Your task to perform on an android device: open sync settings in chrome Image 0: 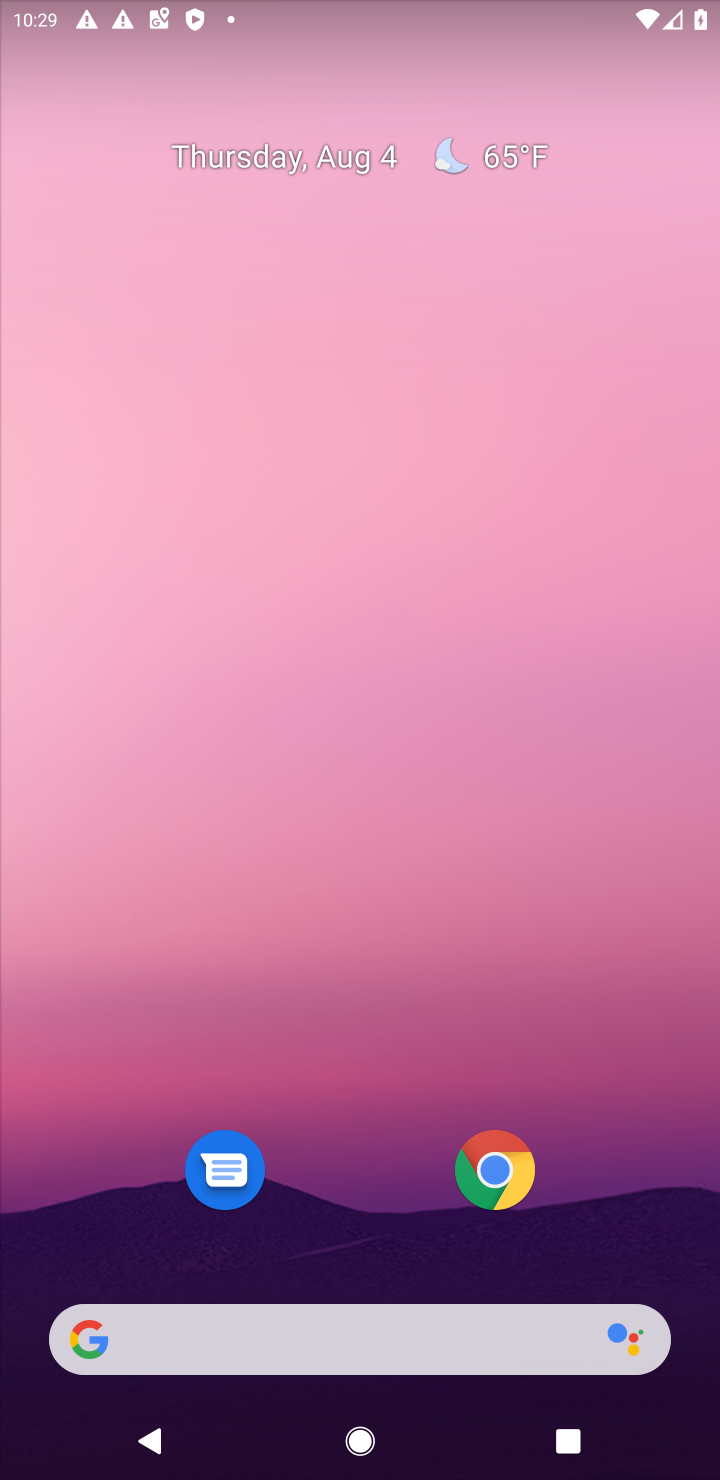
Step 0: drag from (231, 1112) to (365, 16)
Your task to perform on an android device: open sync settings in chrome Image 1: 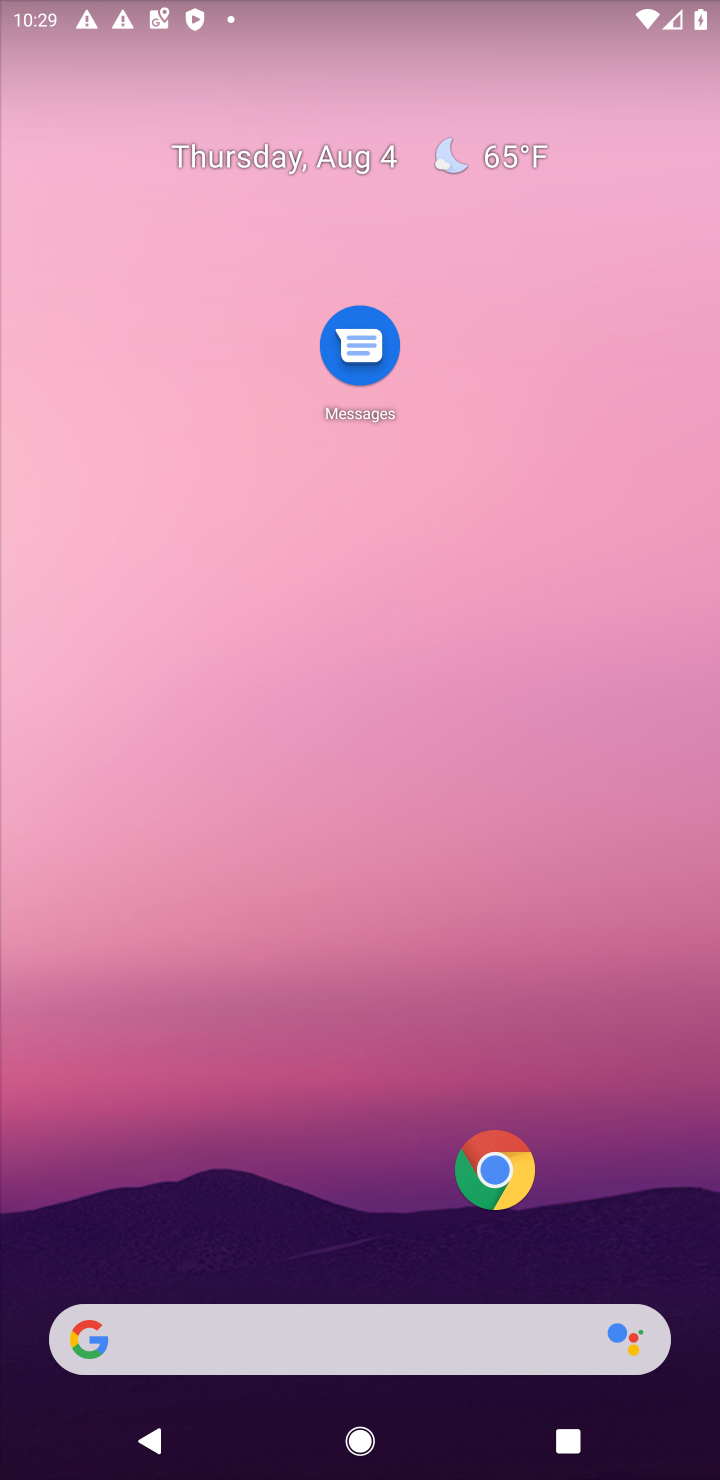
Step 1: drag from (305, 911) to (361, 0)
Your task to perform on an android device: open sync settings in chrome Image 2: 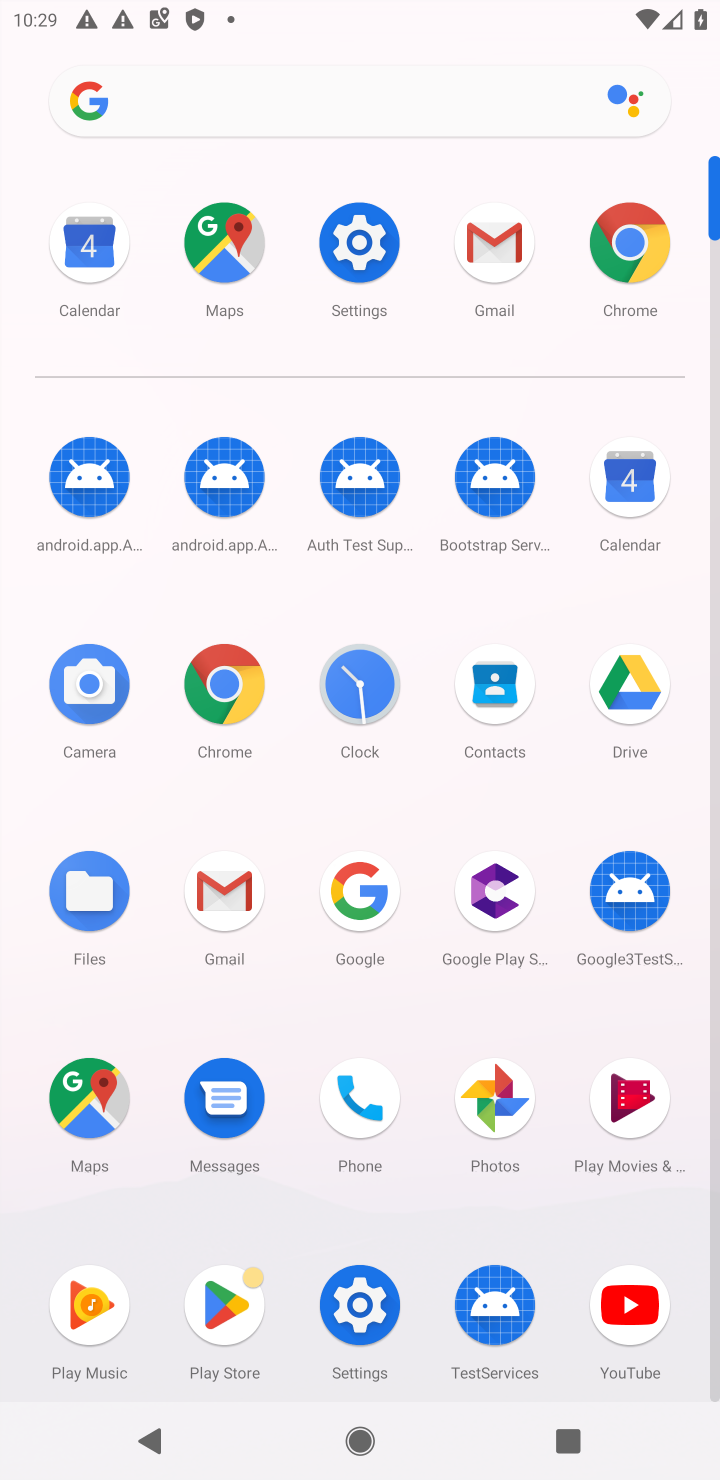
Step 2: click (634, 253)
Your task to perform on an android device: open sync settings in chrome Image 3: 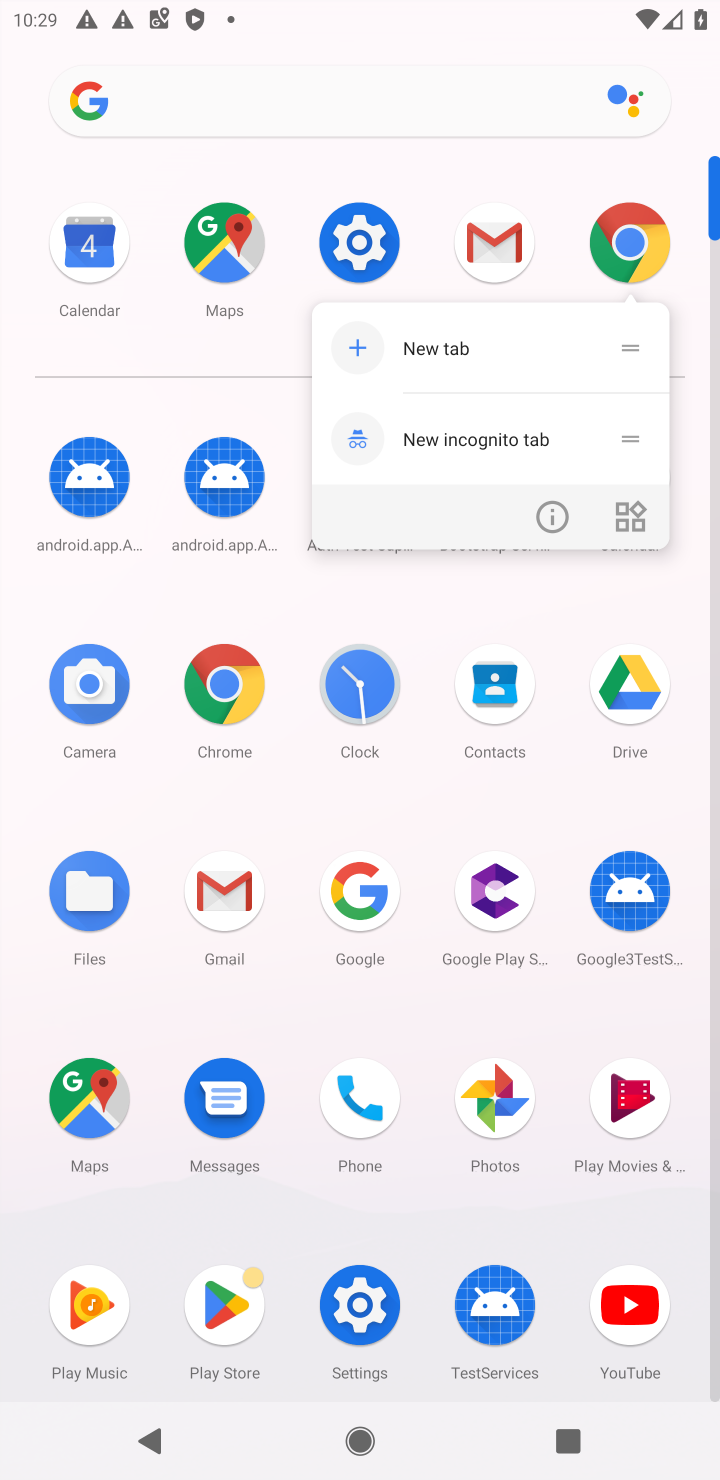
Step 3: click (634, 253)
Your task to perform on an android device: open sync settings in chrome Image 4: 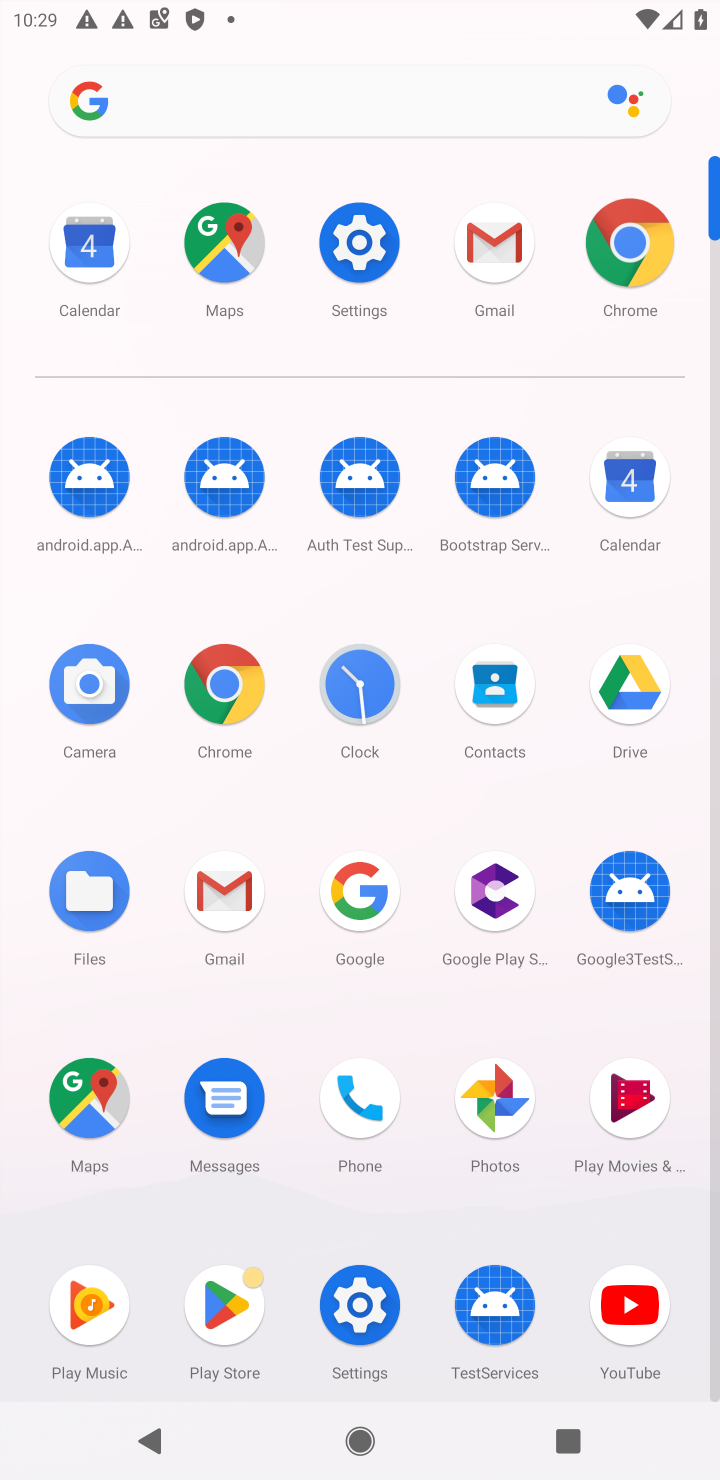
Step 4: click (634, 253)
Your task to perform on an android device: open sync settings in chrome Image 5: 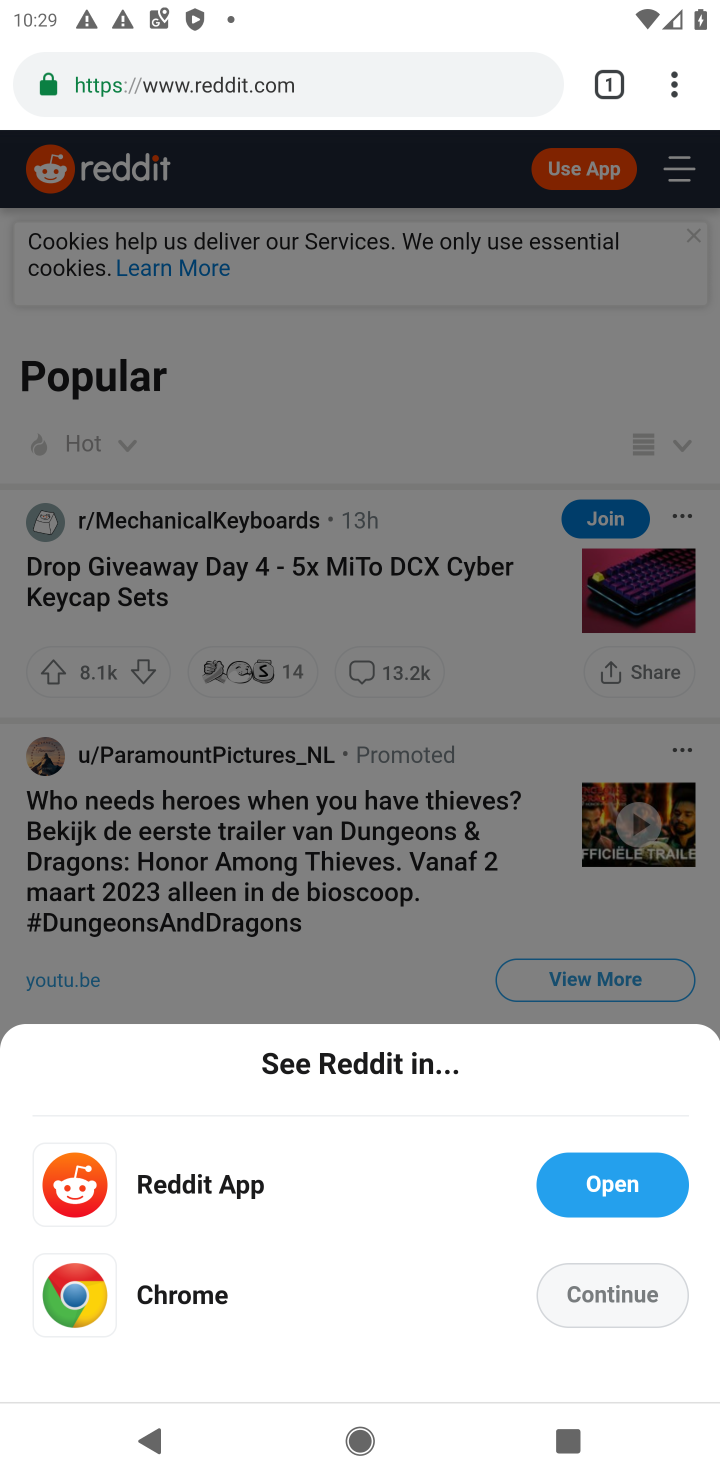
Step 5: drag from (672, 96) to (409, 950)
Your task to perform on an android device: open sync settings in chrome Image 6: 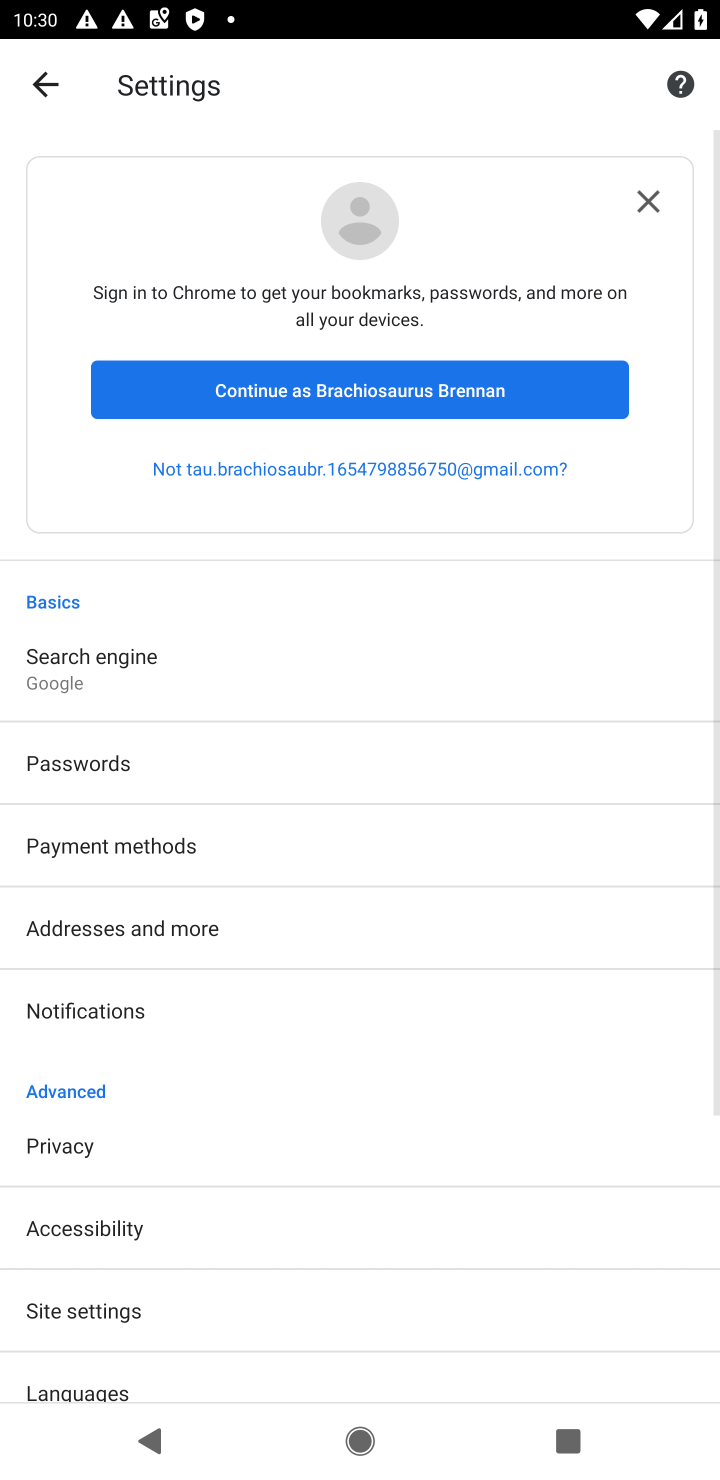
Step 6: click (202, 1287)
Your task to perform on an android device: open sync settings in chrome Image 7: 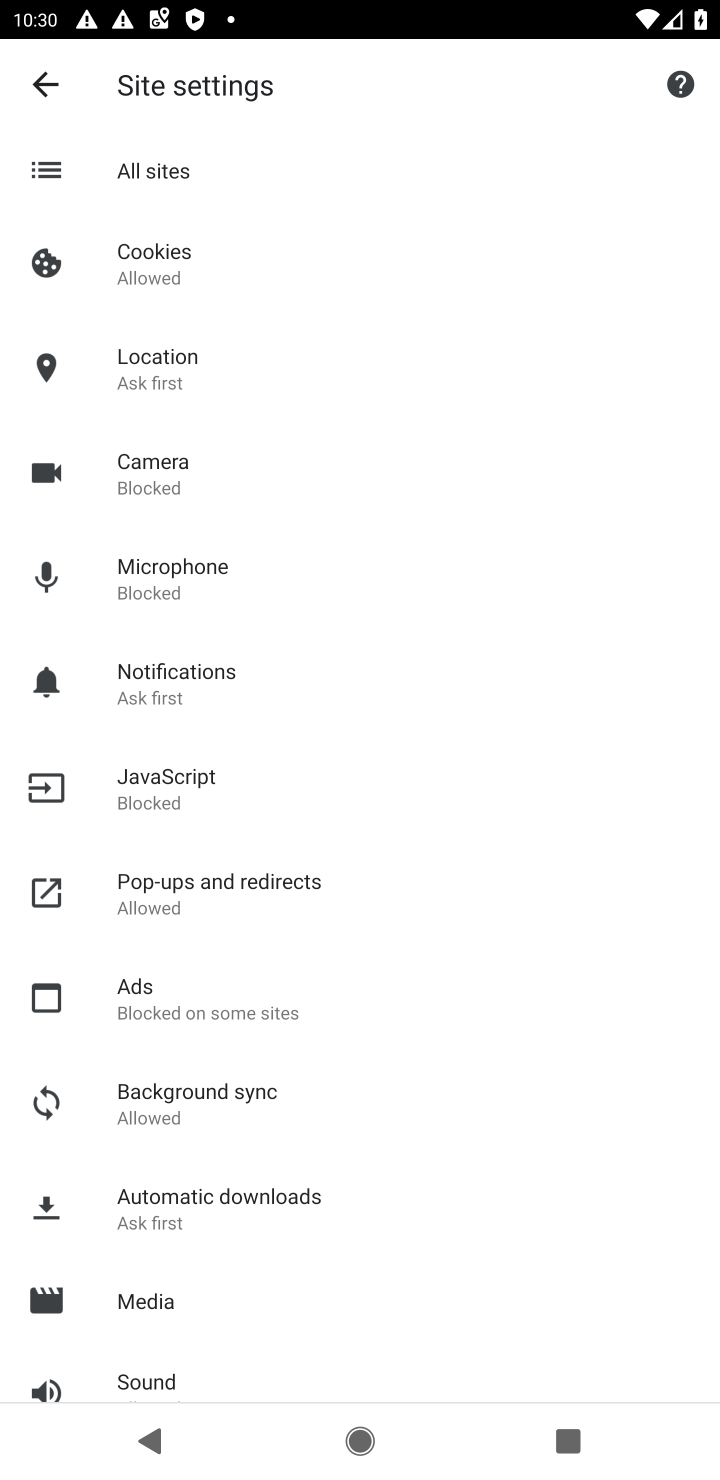
Step 7: drag from (277, 1249) to (452, 370)
Your task to perform on an android device: open sync settings in chrome Image 8: 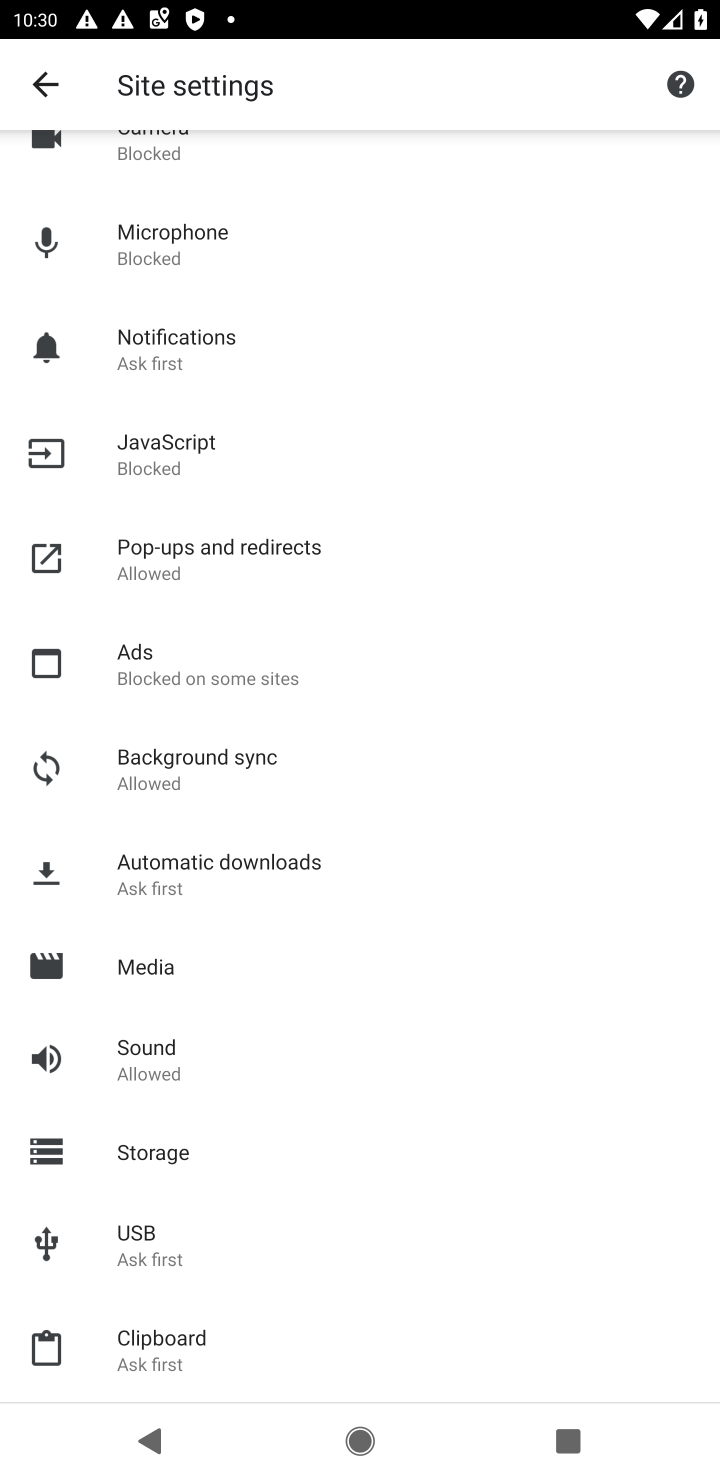
Step 8: click (202, 774)
Your task to perform on an android device: open sync settings in chrome Image 9: 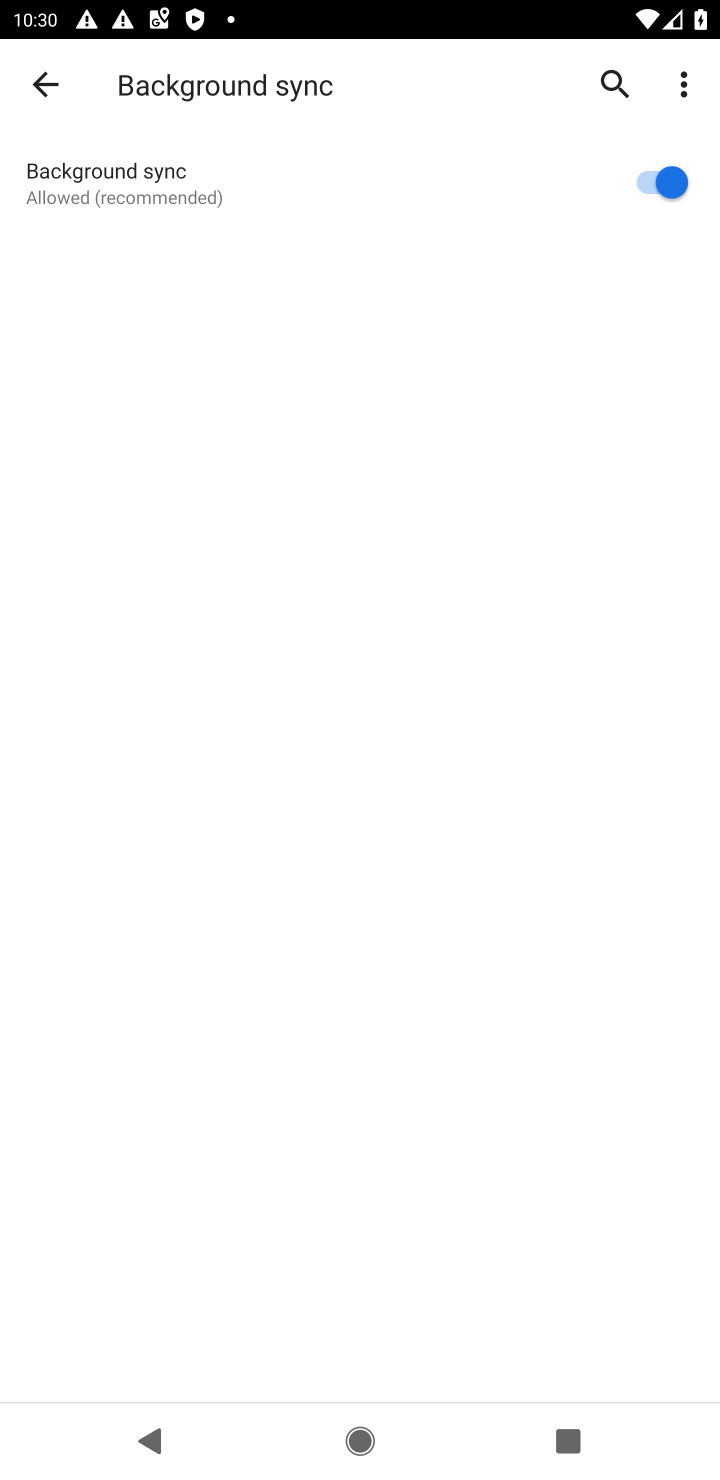
Step 9: task complete